Your task to perform on an android device: Toggle the flashlight Image 0: 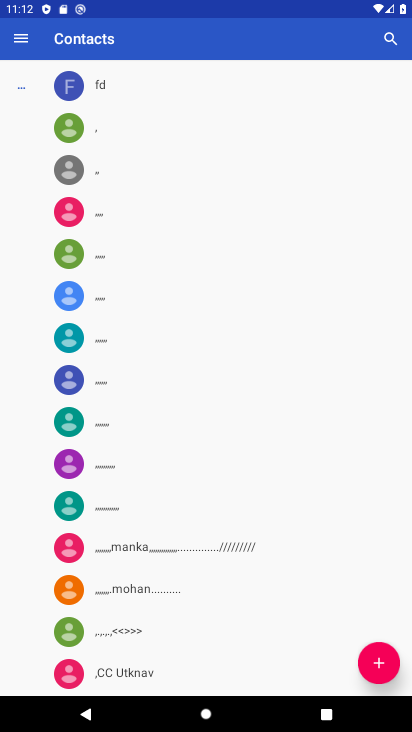
Step 0: drag from (310, 3) to (353, 342)
Your task to perform on an android device: Toggle the flashlight Image 1: 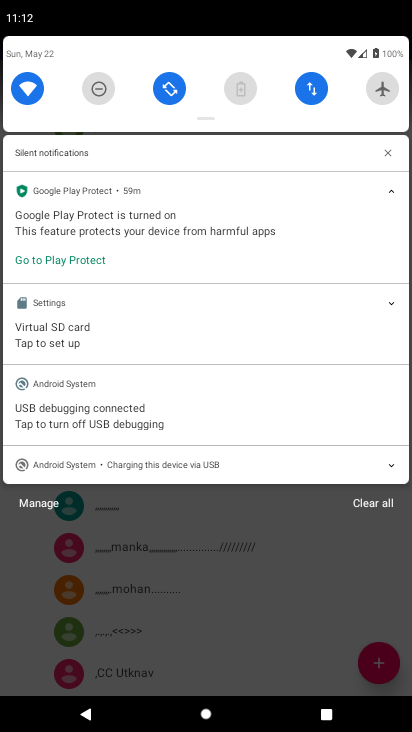
Step 1: task complete